Your task to perform on an android device: What is the news today? Image 0: 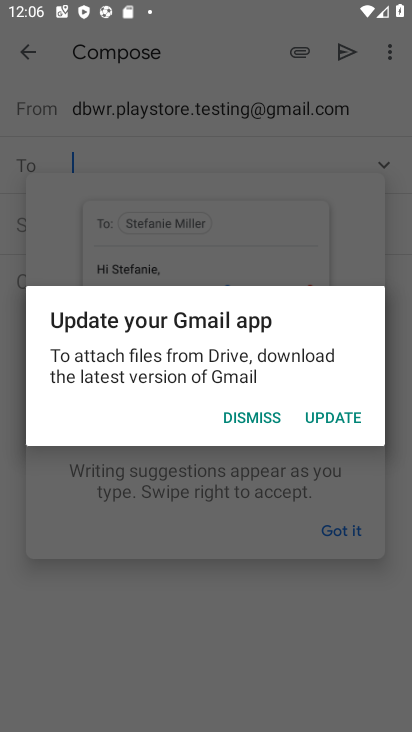
Step 0: press home button
Your task to perform on an android device: What is the news today? Image 1: 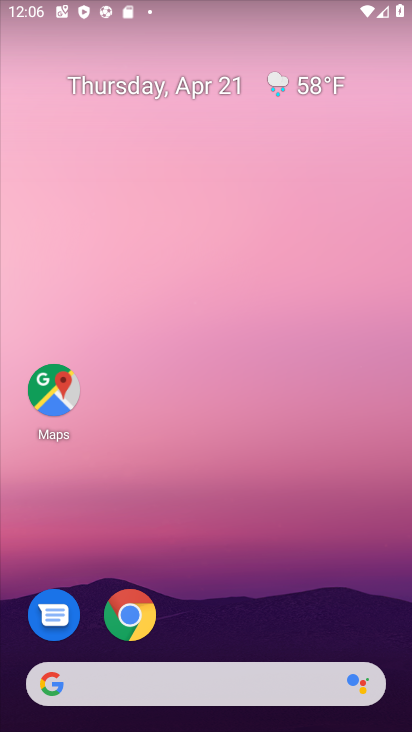
Step 1: drag from (342, 611) to (312, 107)
Your task to perform on an android device: What is the news today? Image 2: 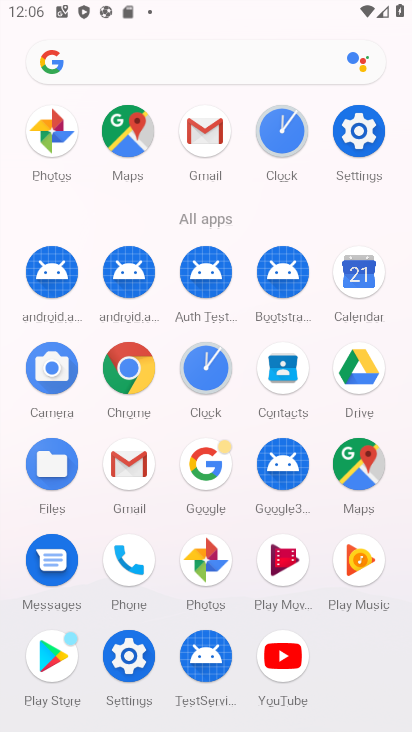
Step 2: click (135, 379)
Your task to perform on an android device: What is the news today? Image 3: 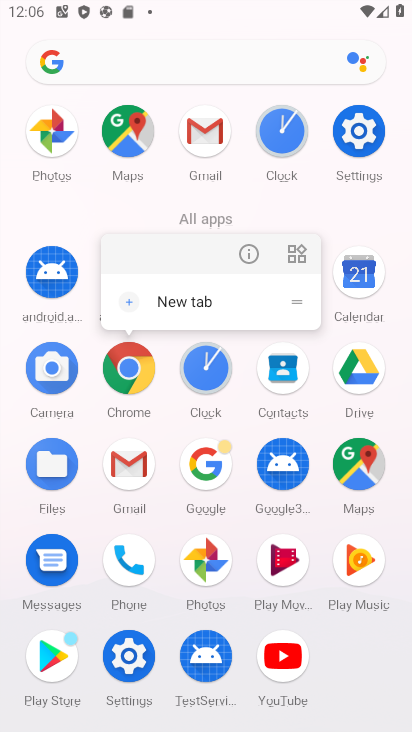
Step 3: click (135, 380)
Your task to perform on an android device: What is the news today? Image 4: 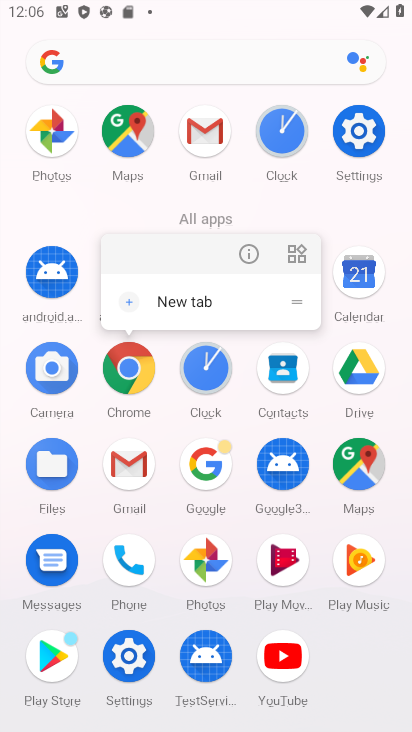
Step 4: click (132, 372)
Your task to perform on an android device: What is the news today? Image 5: 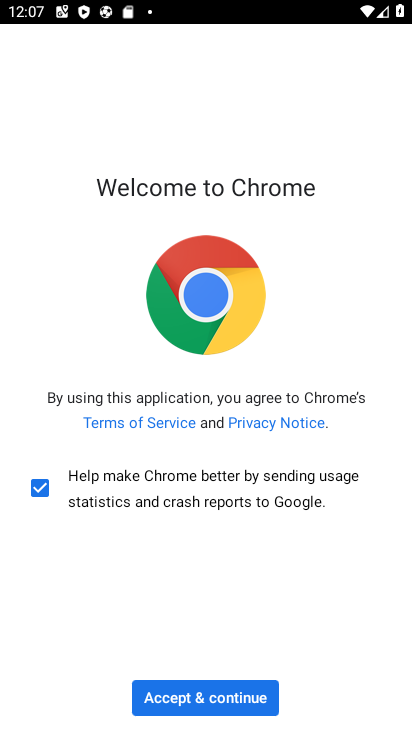
Step 5: click (193, 707)
Your task to perform on an android device: What is the news today? Image 6: 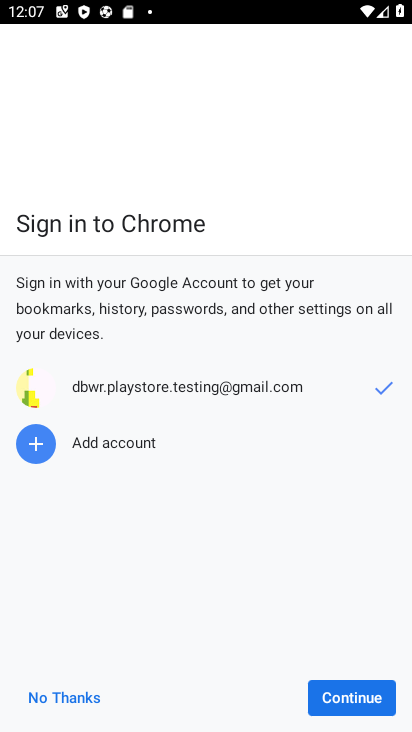
Step 6: click (354, 709)
Your task to perform on an android device: What is the news today? Image 7: 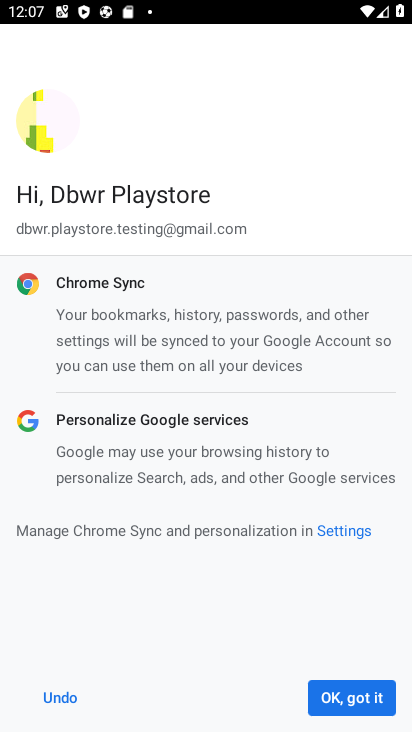
Step 7: click (349, 708)
Your task to perform on an android device: What is the news today? Image 8: 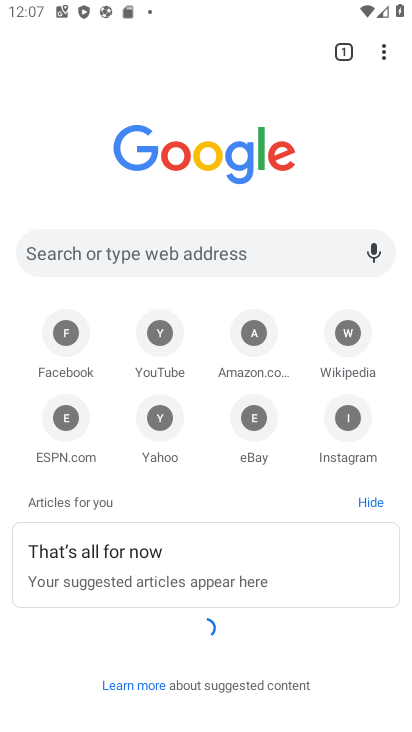
Step 8: click (181, 248)
Your task to perform on an android device: What is the news today? Image 9: 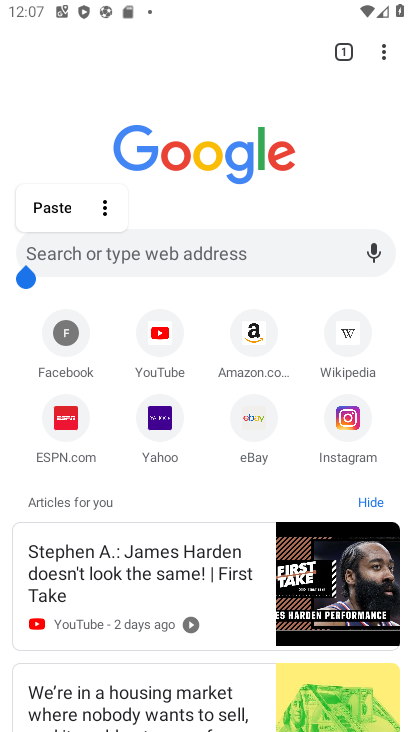
Step 9: click (242, 260)
Your task to perform on an android device: What is the news today? Image 10: 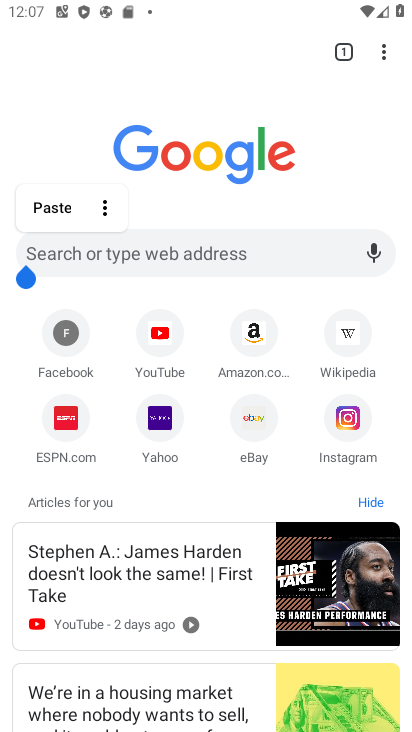
Step 10: click (242, 260)
Your task to perform on an android device: What is the news today? Image 11: 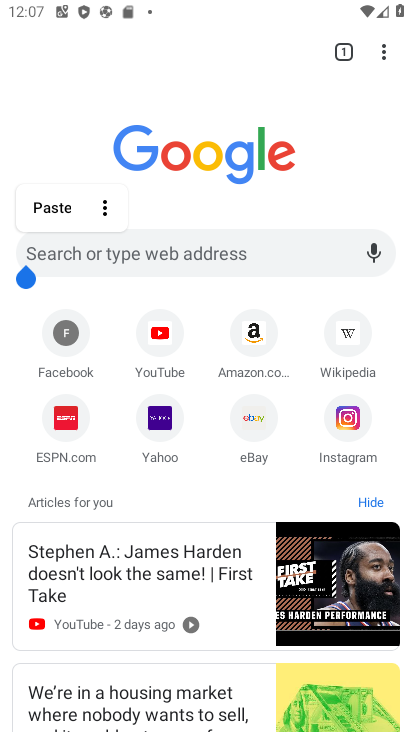
Step 11: click (242, 259)
Your task to perform on an android device: What is the news today? Image 12: 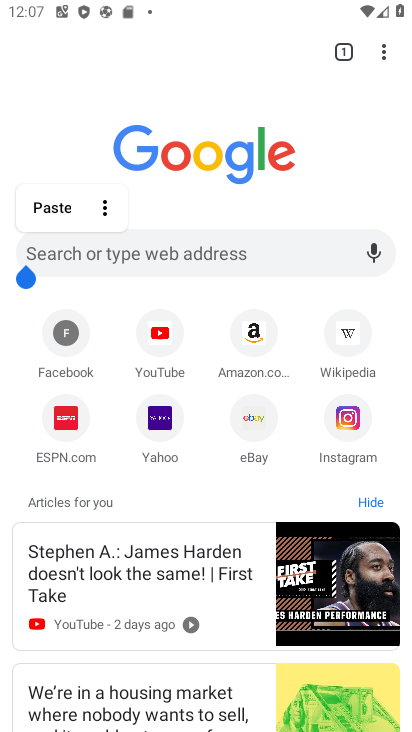
Step 12: click (241, 259)
Your task to perform on an android device: What is the news today? Image 13: 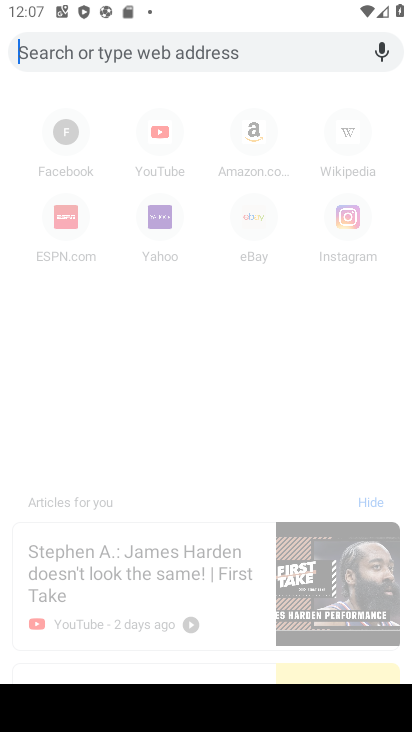
Step 13: type "news today"
Your task to perform on an android device: What is the news today? Image 14: 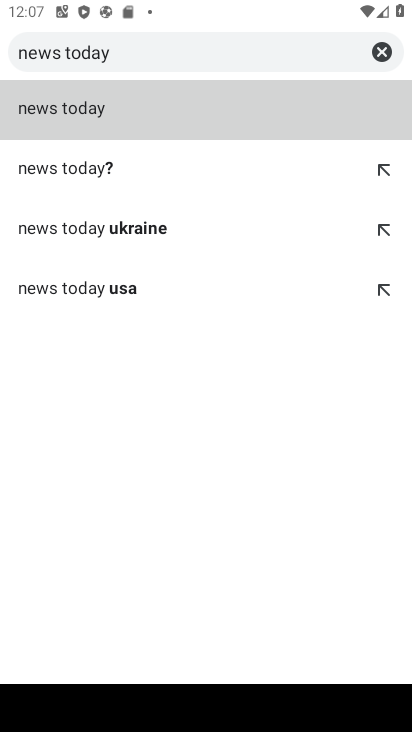
Step 14: click (84, 112)
Your task to perform on an android device: What is the news today? Image 15: 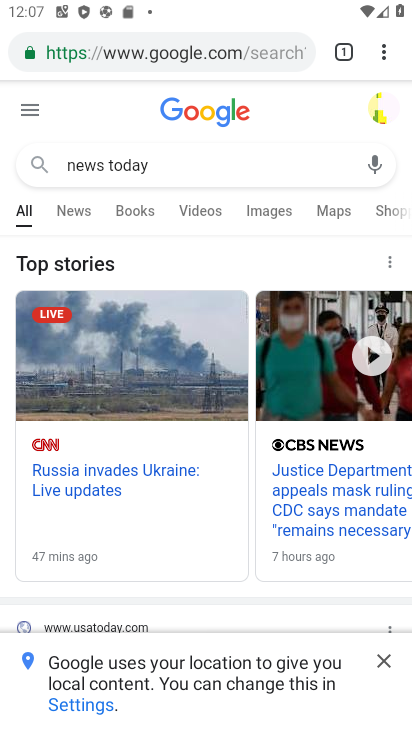
Step 15: task complete